Your task to perform on an android device: Turn on notifications for the Google Maps app Image 0: 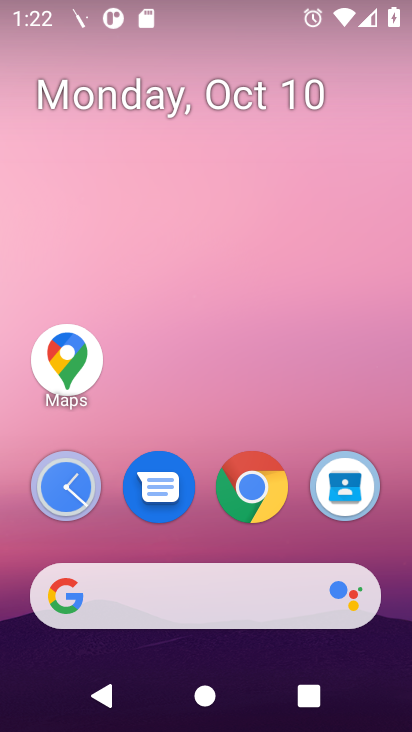
Step 0: drag from (228, 578) to (192, 141)
Your task to perform on an android device: Turn on notifications for the Google Maps app Image 1: 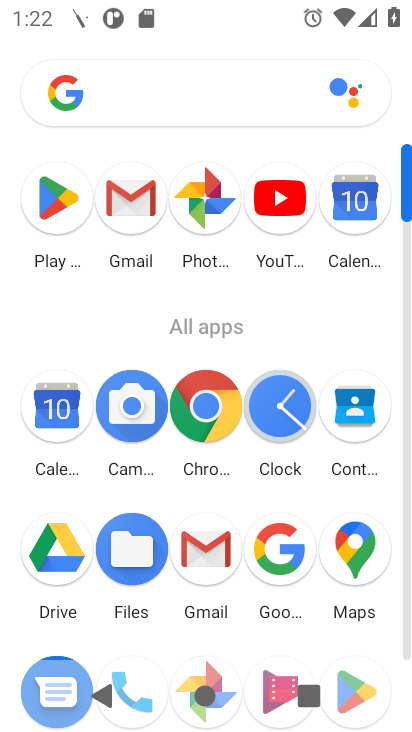
Step 1: drag from (113, 252) to (113, 175)
Your task to perform on an android device: Turn on notifications for the Google Maps app Image 2: 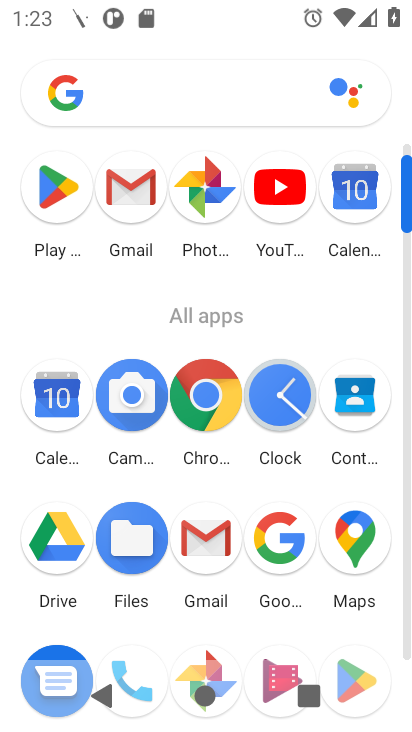
Step 2: drag from (168, 528) to (146, 151)
Your task to perform on an android device: Turn on notifications for the Google Maps app Image 3: 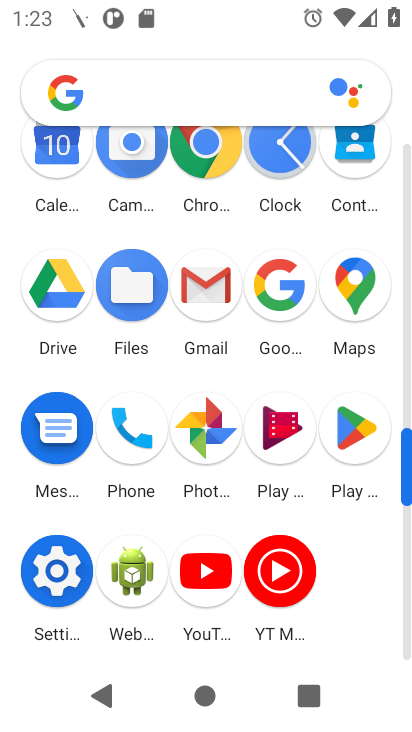
Step 3: click (51, 590)
Your task to perform on an android device: Turn on notifications for the Google Maps app Image 4: 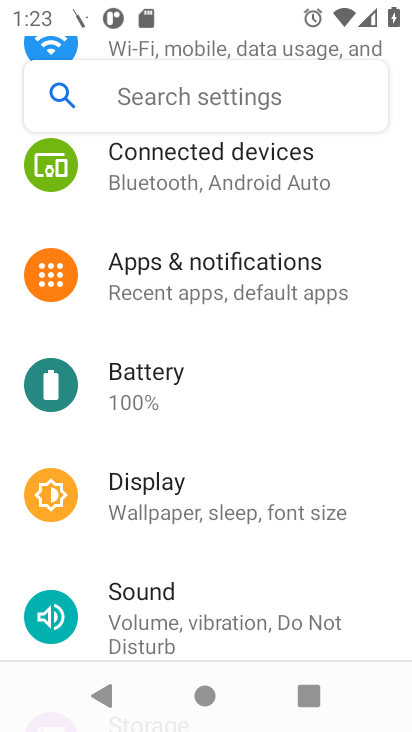
Step 4: click (260, 271)
Your task to perform on an android device: Turn on notifications for the Google Maps app Image 5: 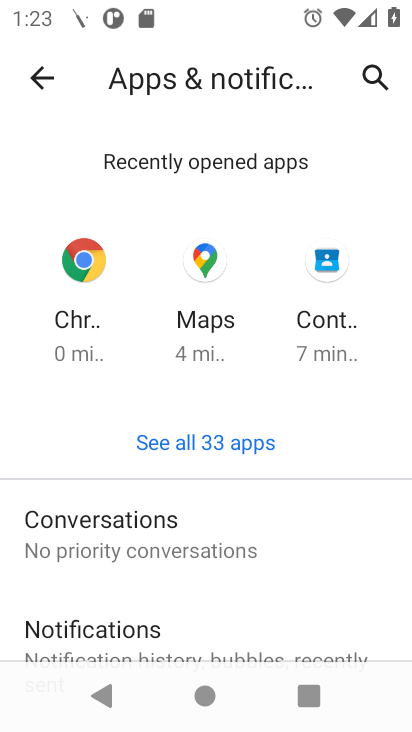
Step 5: click (199, 273)
Your task to perform on an android device: Turn on notifications for the Google Maps app Image 6: 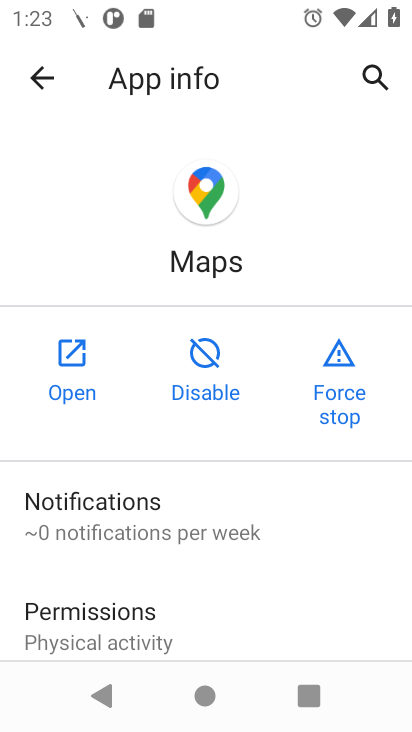
Step 6: click (148, 516)
Your task to perform on an android device: Turn on notifications for the Google Maps app Image 7: 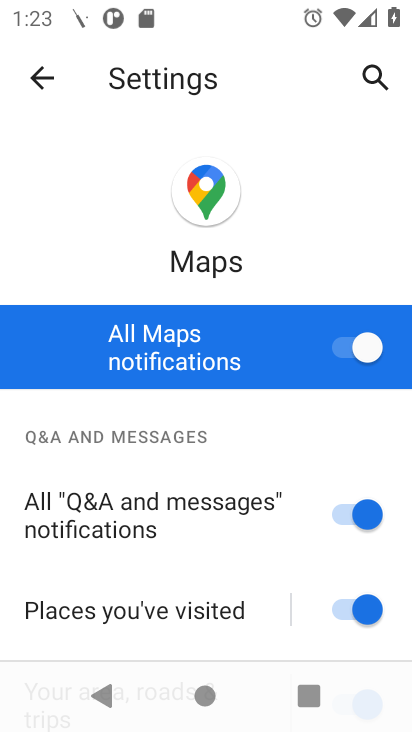
Step 7: click (357, 348)
Your task to perform on an android device: Turn on notifications for the Google Maps app Image 8: 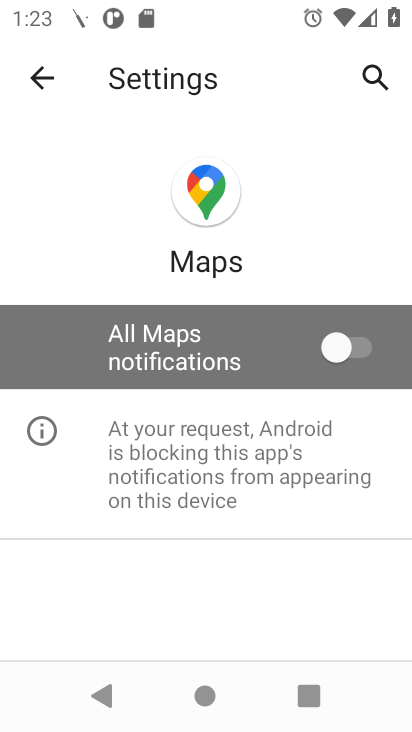
Step 8: click (356, 353)
Your task to perform on an android device: Turn on notifications for the Google Maps app Image 9: 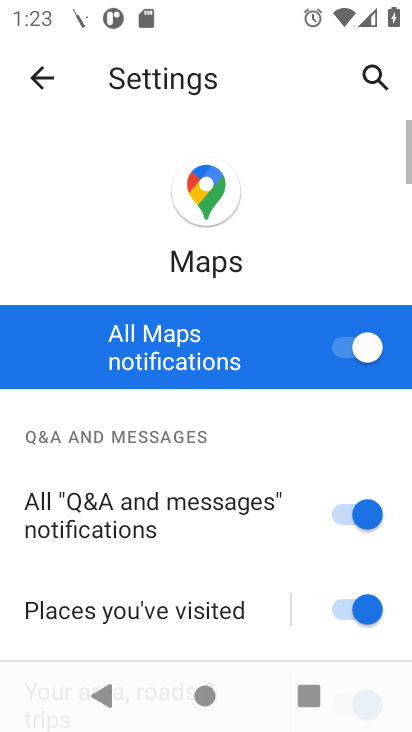
Step 9: drag from (232, 621) to (206, 278)
Your task to perform on an android device: Turn on notifications for the Google Maps app Image 10: 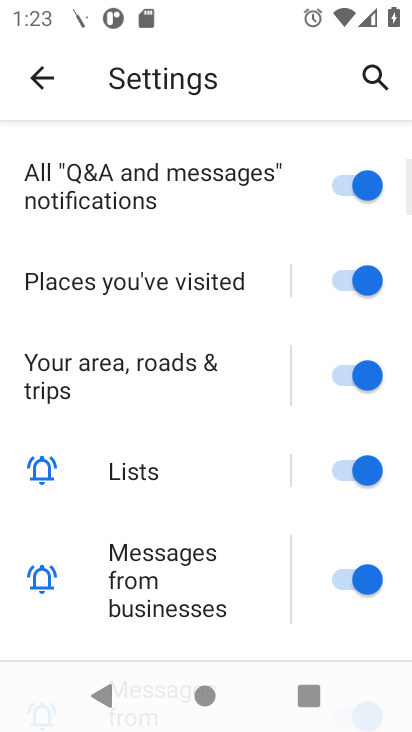
Step 10: drag from (192, 561) to (177, 181)
Your task to perform on an android device: Turn on notifications for the Google Maps app Image 11: 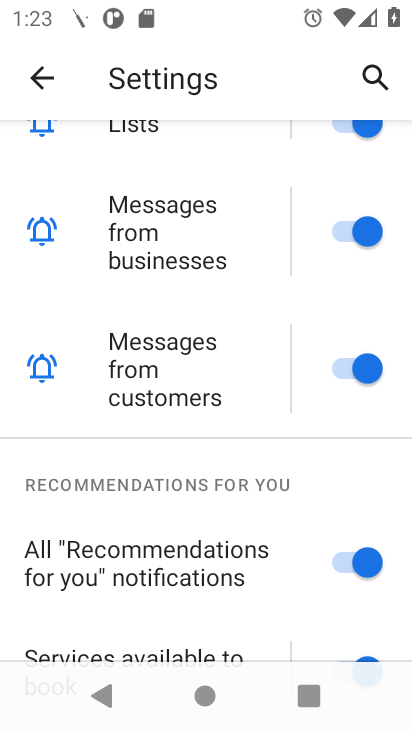
Step 11: drag from (185, 572) to (137, 185)
Your task to perform on an android device: Turn on notifications for the Google Maps app Image 12: 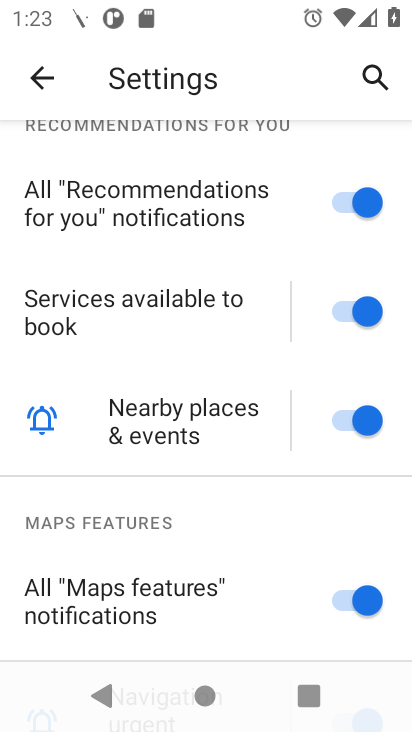
Step 12: drag from (195, 577) to (142, 146)
Your task to perform on an android device: Turn on notifications for the Google Maps app Image 13: 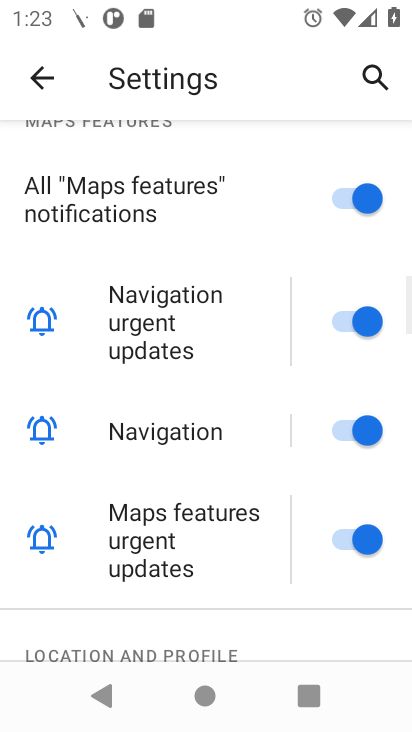
Step 13: drag from (200, 599) to (189, 278)
Your task to perform on an android device: Turn on notifications for the Google Maps app Image 14: 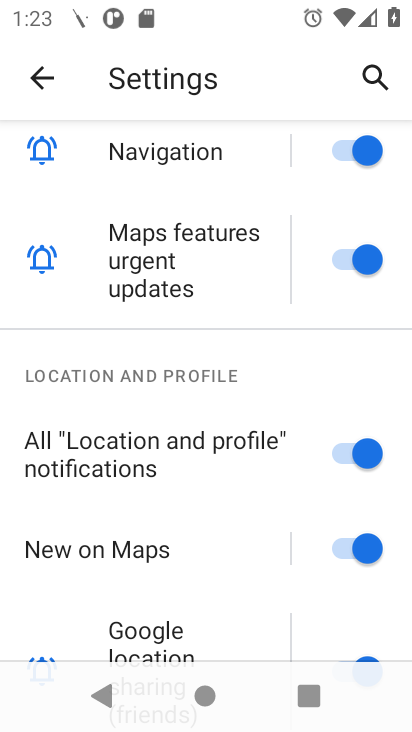
Step 14: drag from (226, 619) to (211, 190)
Your task to perform on an android device: Turn on notifications for the Google Maps app Image 15: 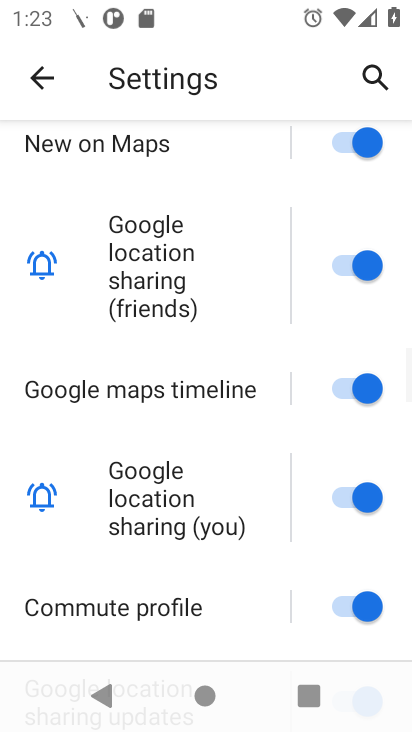
Step 15: drag from (192, 562) to (180, 207)
Your task to perform on an android device: Turn on notifications for the Google Maps app Image 16: 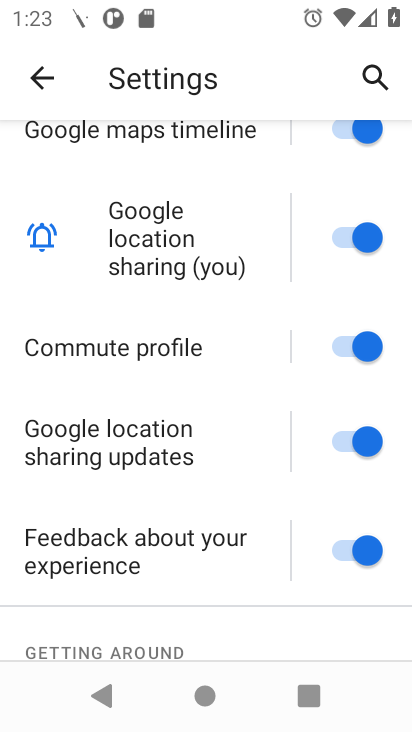
Step 16: drag from (178, 208) to (218, 692)
Your task to perform on an android device: Turn on notifications for the Google Maps app Image 17: 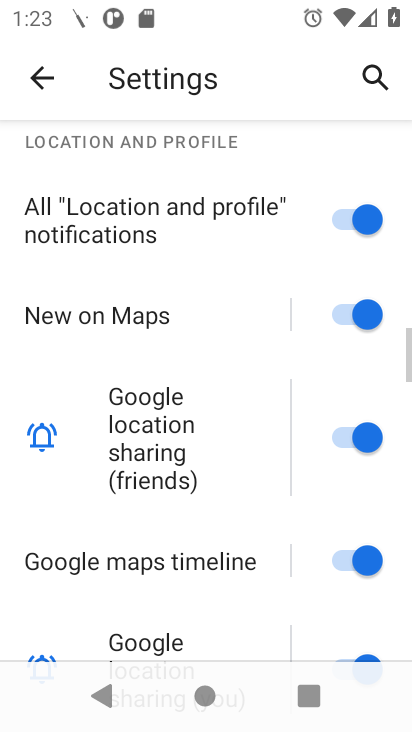
Step 17: drag from (184, 293) to (218, 646)
Your task to perform on an android device: Turn on notifications for the Google Maps app Image 18: 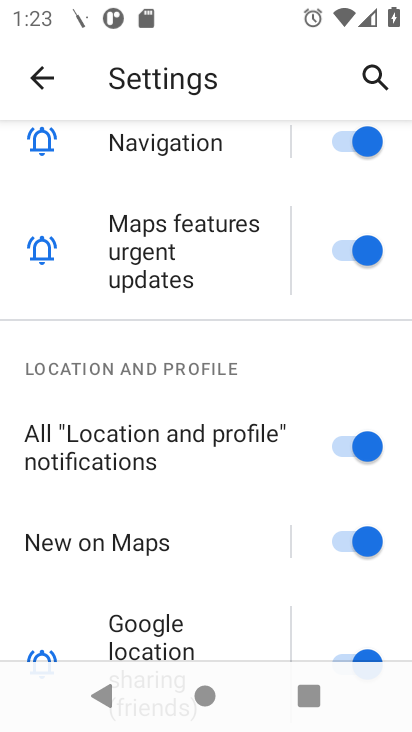
Step 18: drag from (202, 354) to (220, 628)
Your task to perform on an android device: Turn on notifications for the Google Maps app Image 19: 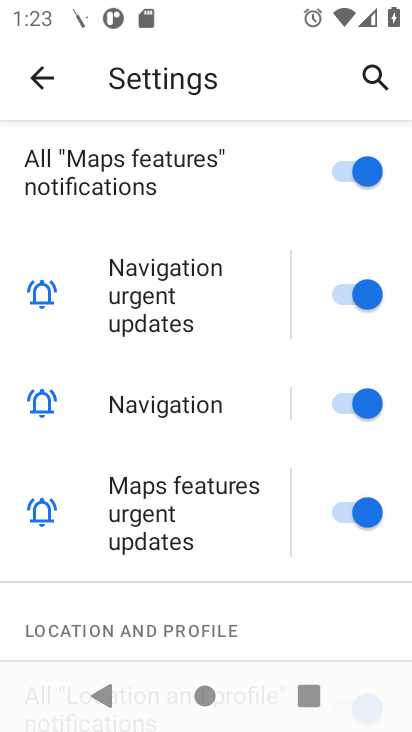
Step 19: drag from (196, 290) to (200, 584)
Your task to perform on an android device: Turn on notifications for the Google Maps app Image 20: 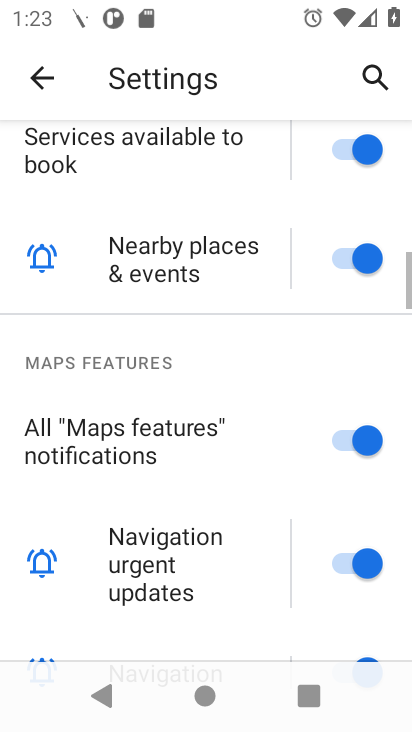
Step 20: drag from (184, 324) to (217, 642)
Your task to perform on an android device: Turn on notifications for the Google Maps app Image 21: 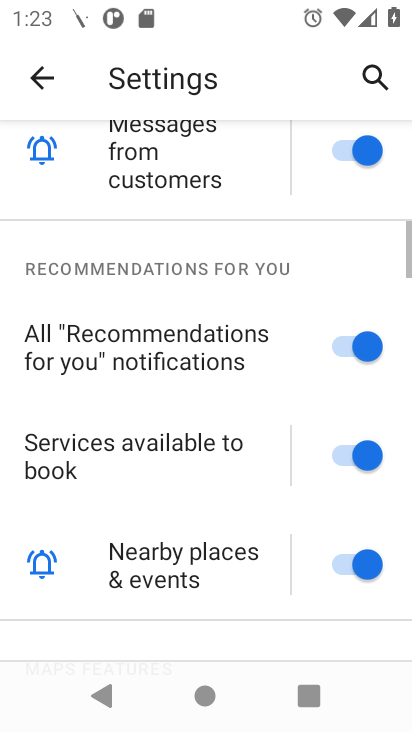
Step 21: drag from (199, 290) to (199, 644)
Your task to perform on an android device: Turn on notifications for the Google Maps app Image 22: 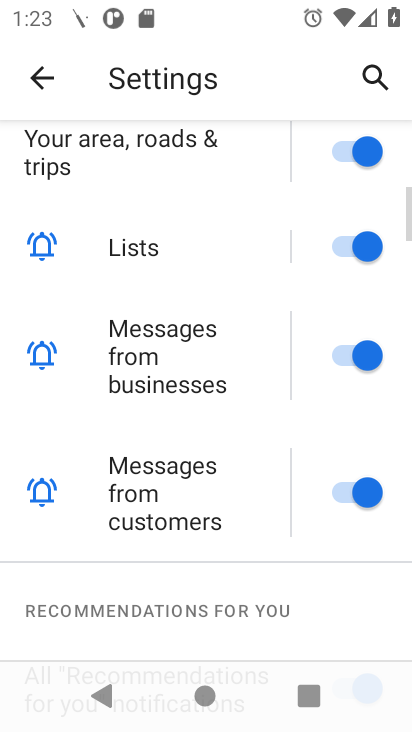
Step 22: drag from (188, 454) to (188, 598)
Your task to perform on an android device: Turn on notifications for the Google Maps app Image 23: 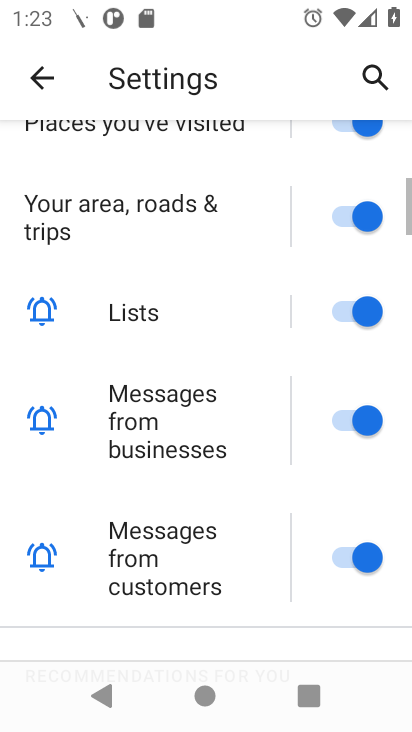
Step 23: drag from (167, 217) to (194, 582)
Your task to perform on an android device: Turn on notifications for the Google Maps app Image 24: 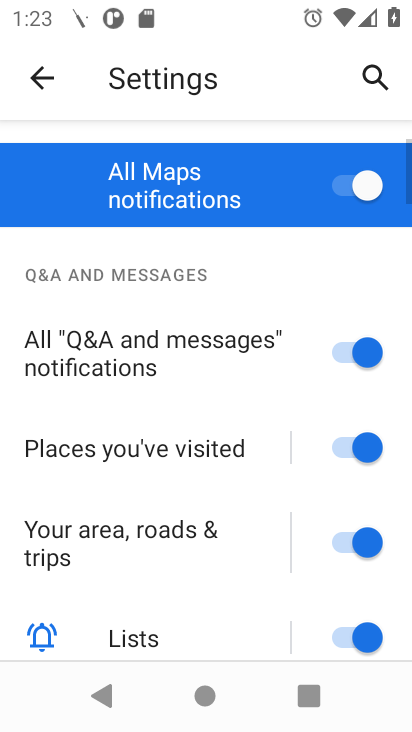
Step 24: drag from (158, 239) to (157, 520)
Your task to perform on an android device: Turn on notifications for the Google Maps app Image 25: 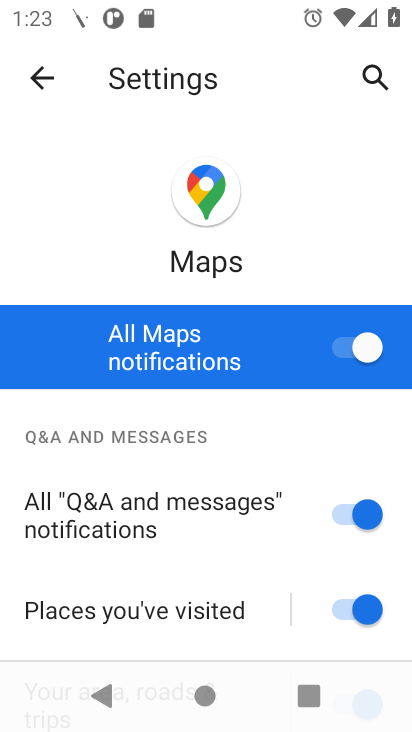
Step 25: type ""
Your task to perform on an android device: Turn on notifications for the Google Maps app Image 26: 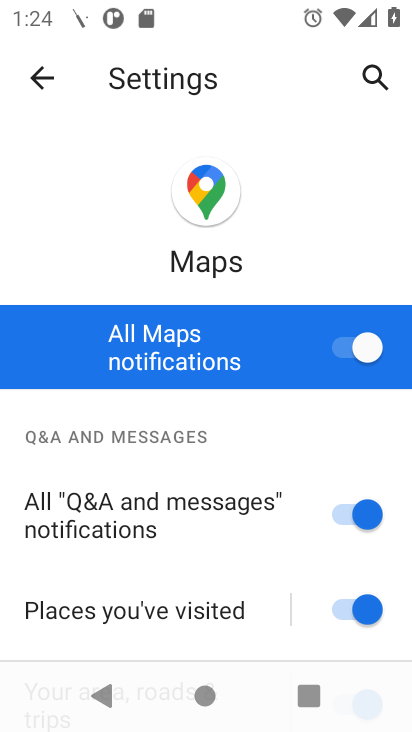
Step 26: task complete